Your task to perform on an android device: open app "Microsoft Outlook" Image 0: 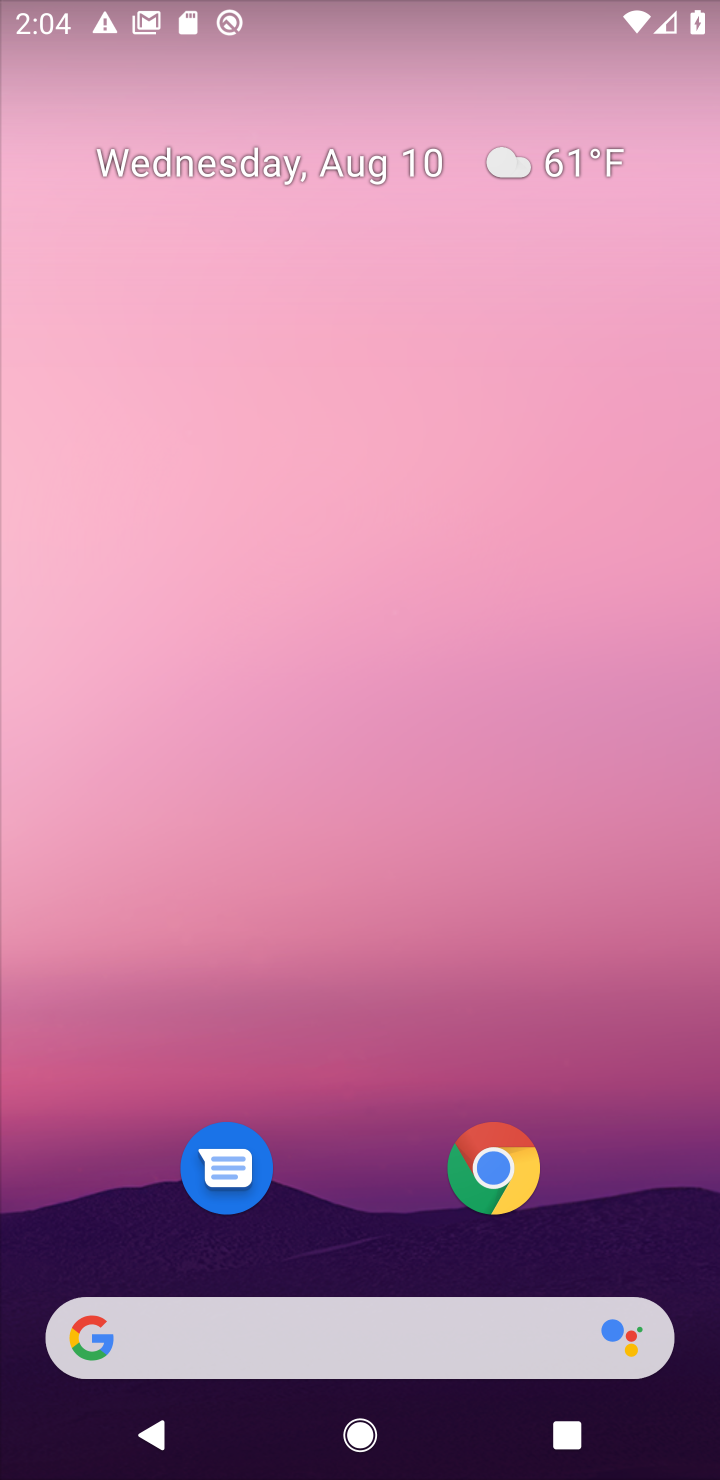
Step 0: drag from (276, 1337) to (364, 97)
Your task to perform on an android device: open app "Microsoft Outlook" Image 1: 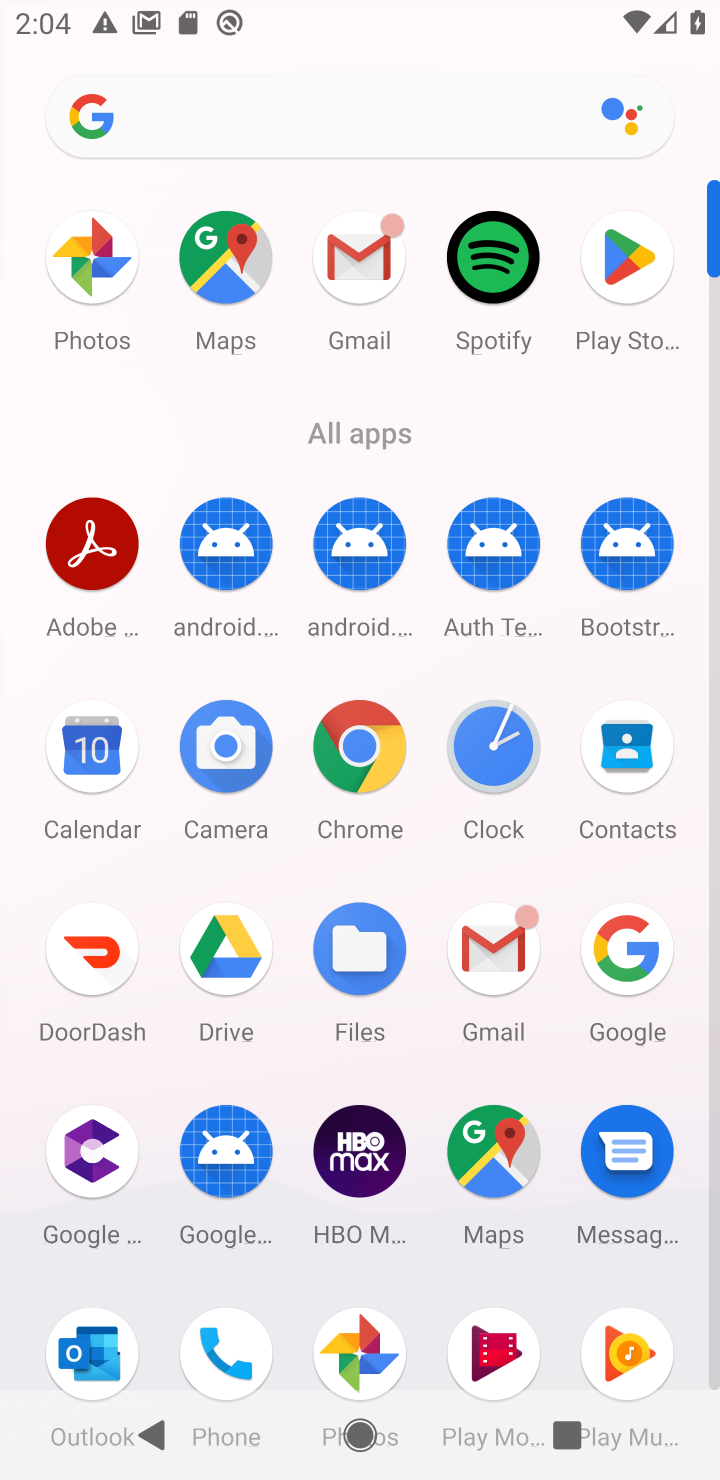
Step 1: click (623, 261)
Your task to perform on an android device: open app "Microsoft Outlook" Image 2: 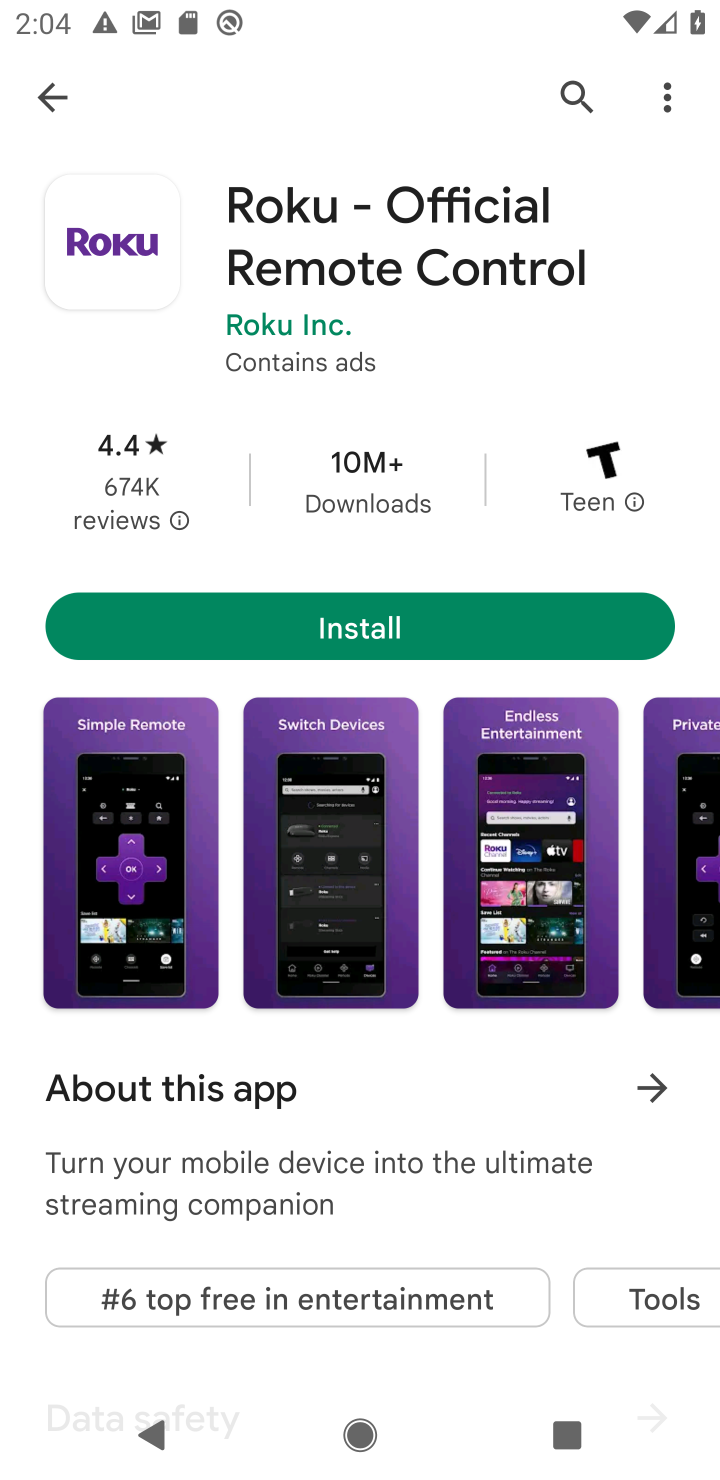
Step 2: press back button
Your task to perform on an android device: open app "Microsoft Outlook" Image 3: 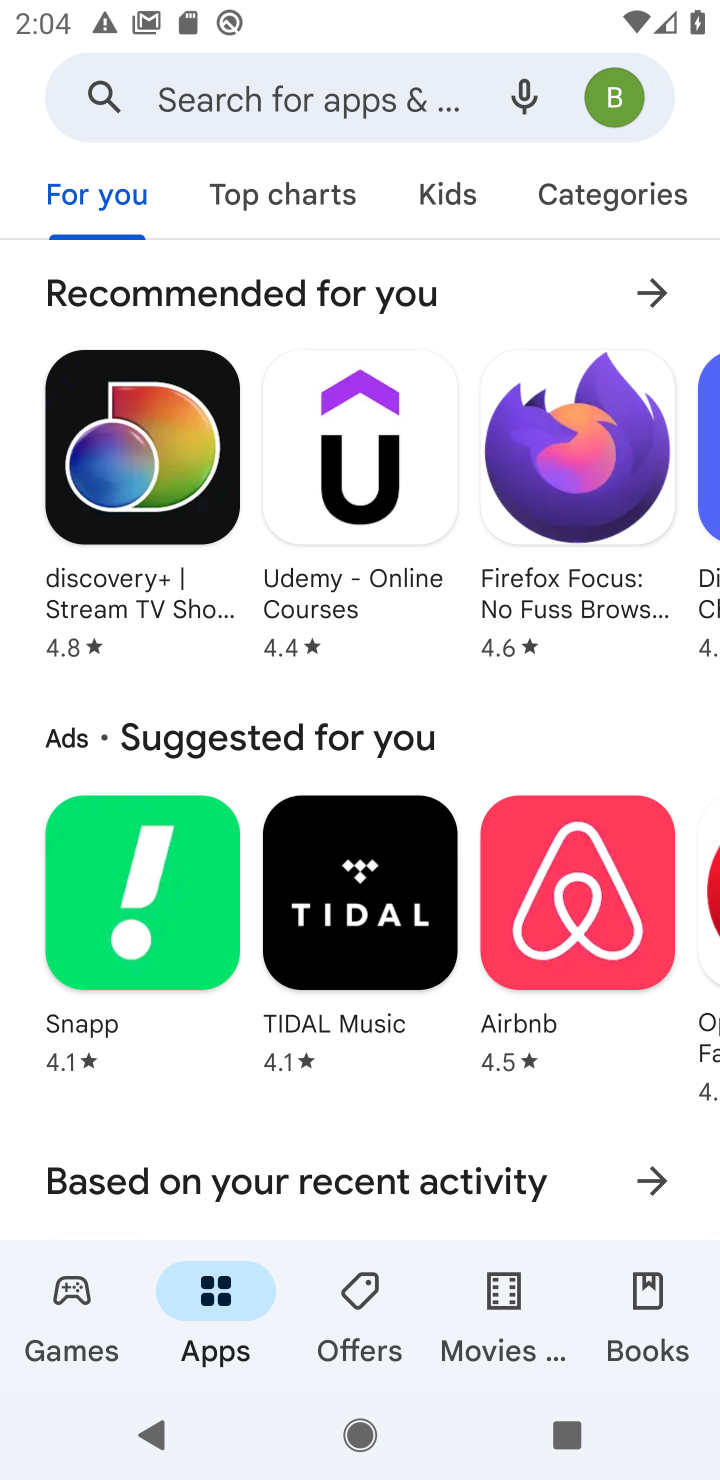
Step 3: click (338, 96)
Your task to perform on an android device: open app "Microsoft Outlook" Image 4: 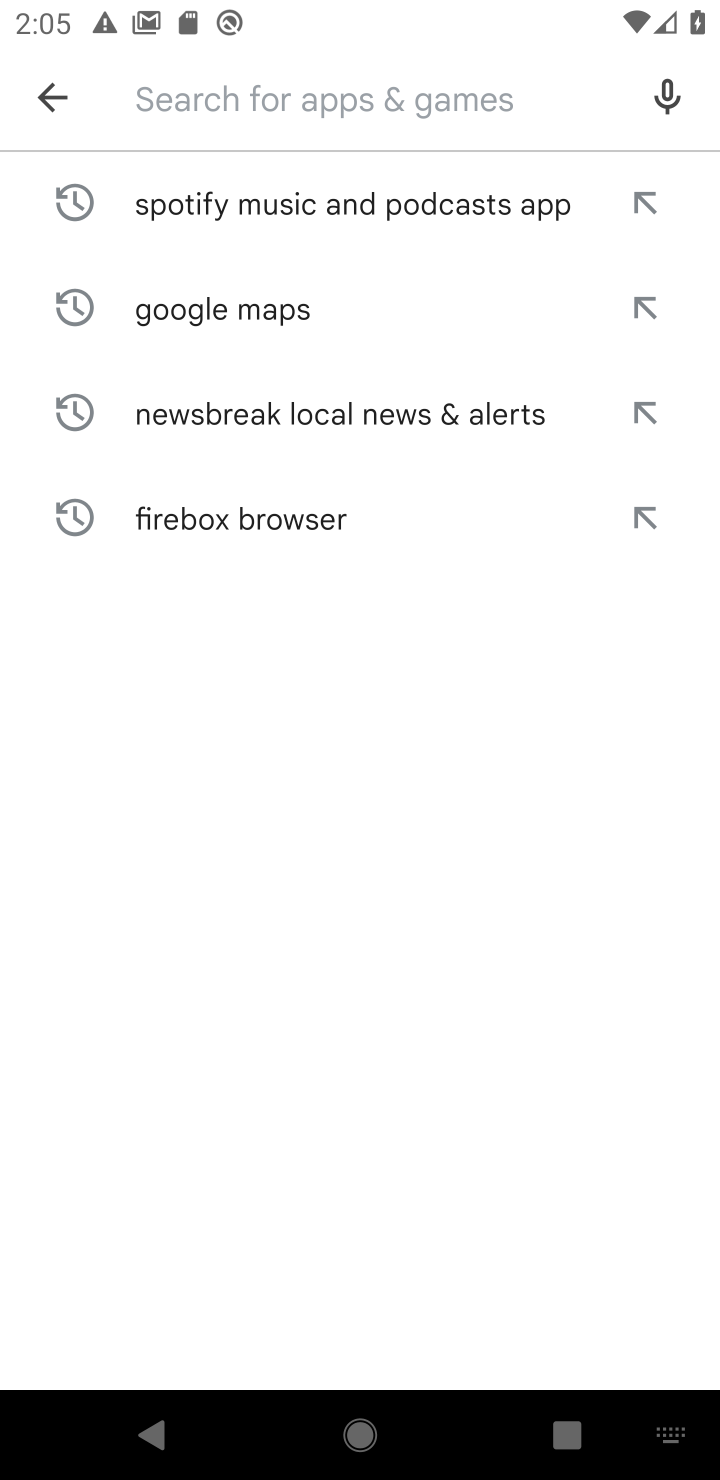
Step 4: type "Microsoft Outlook"
Your task to perform on an android device: open app "Microsoft Outlook" Image 5: 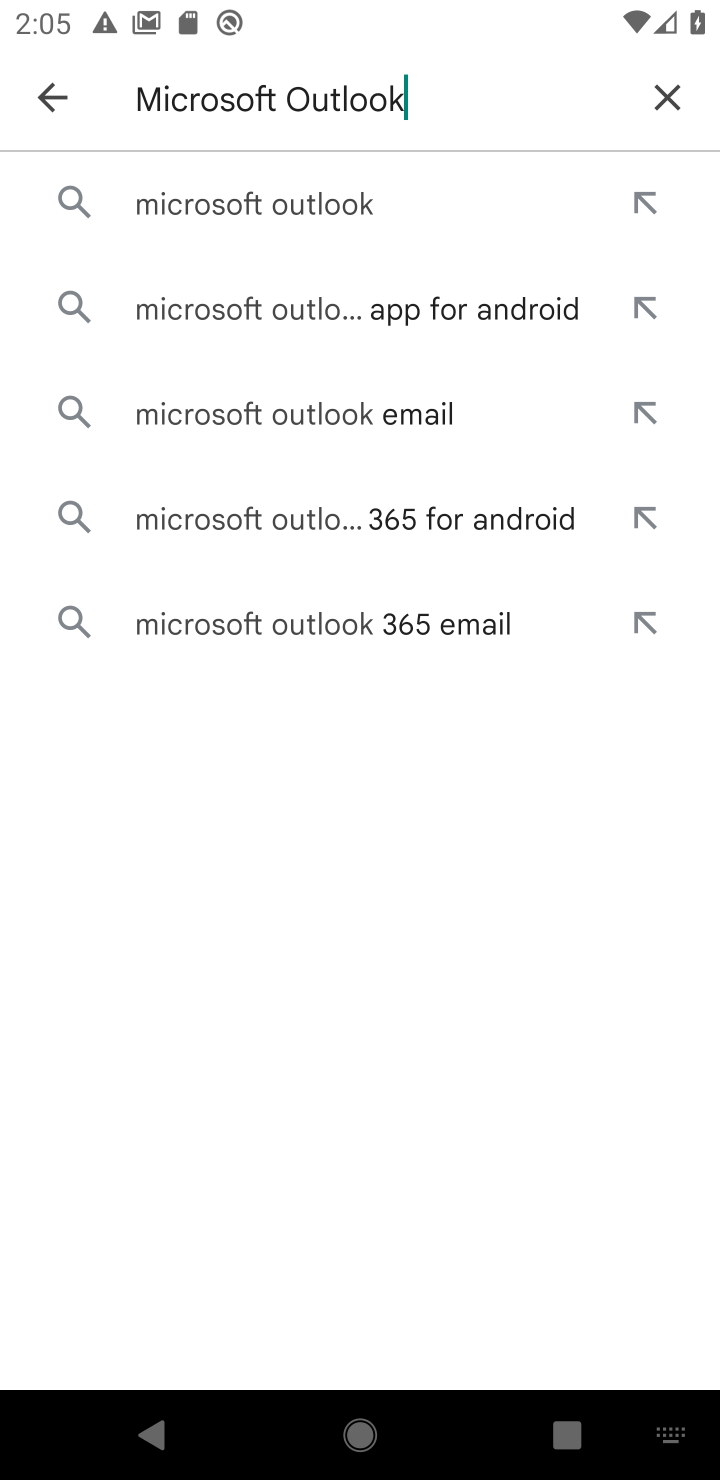
Step 5: click (293, 213)
Your task to perform on an android device: open app "Microsoft Outlook" Image 6: 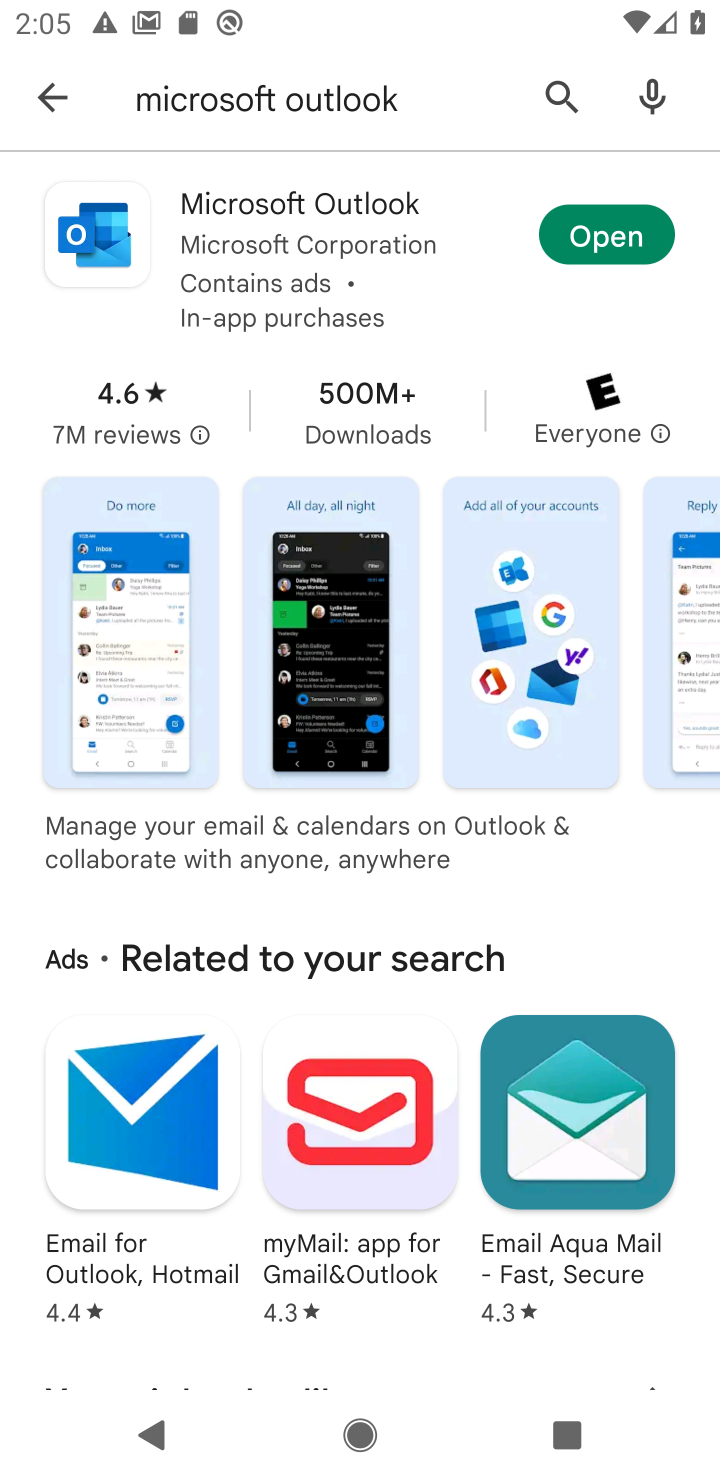
Step 6: click (604, 229)
Your task to perform on an android device: open app "Microsoft Outlook" Image 7: 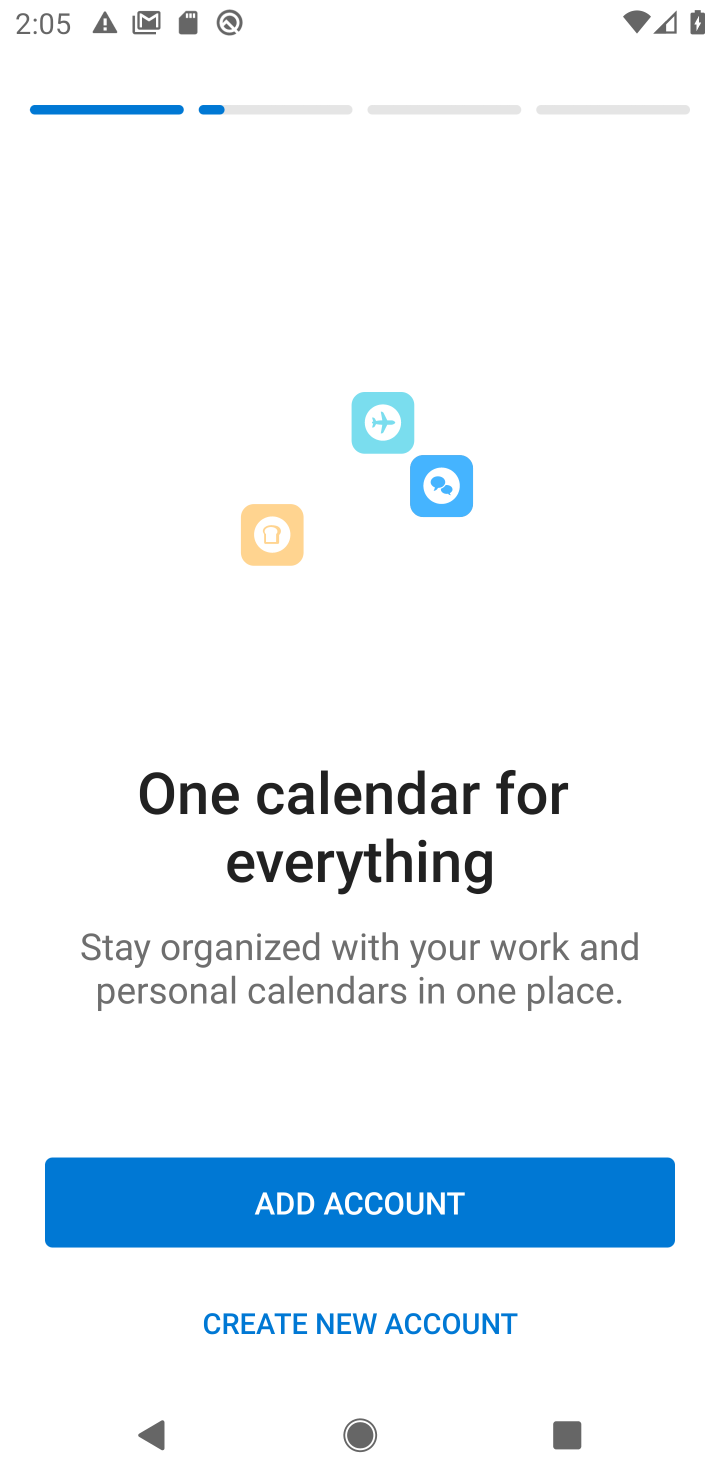
Step 7: task complete